Your task to perform on an android device: Open Google Maps Image 0: 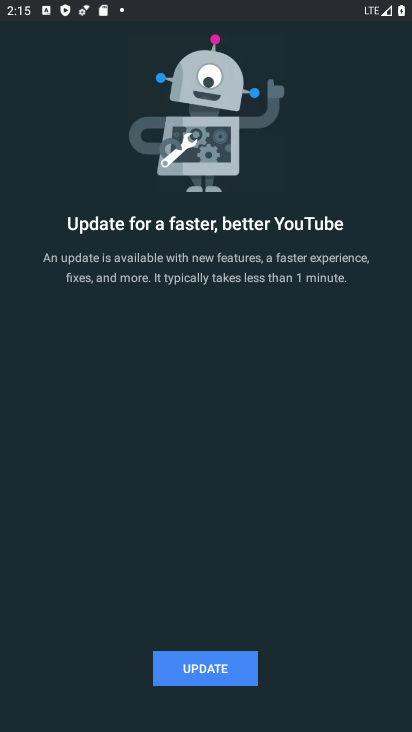
Step 0: press home button
Your task to perform on an android device: Open Google Maps Image 1: 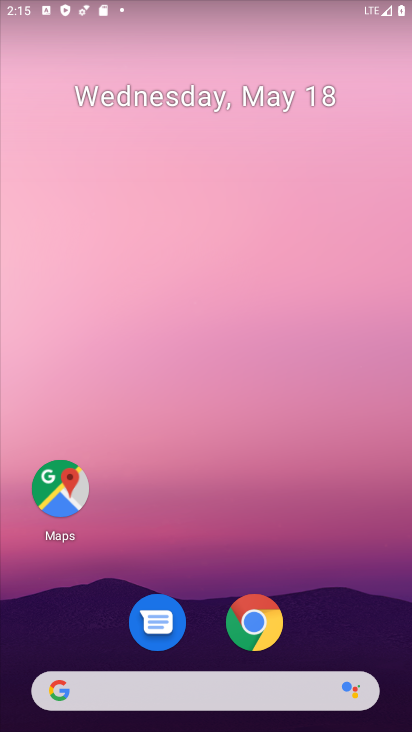
Step 1: click (83, 498)
Your task to perform on an android device: Open Google Maps Image 2: 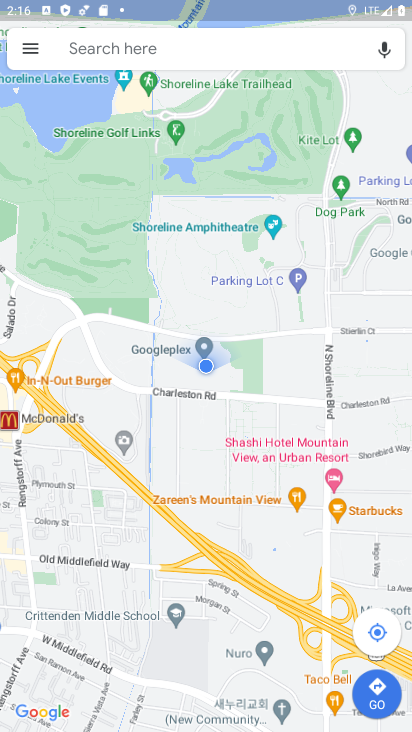
Step 2: task complete